Your task to perform on an android device: uninstall "ColorNote Notepad Notes" Image 0: 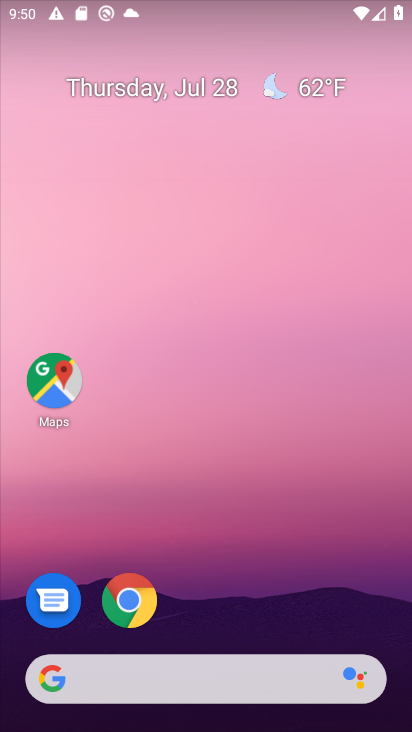
Step 0: drag from (229, 429) to (242, 25)
Your task to perform on an android device: uninstall "ColorNote Notepad Notes" Image 1: 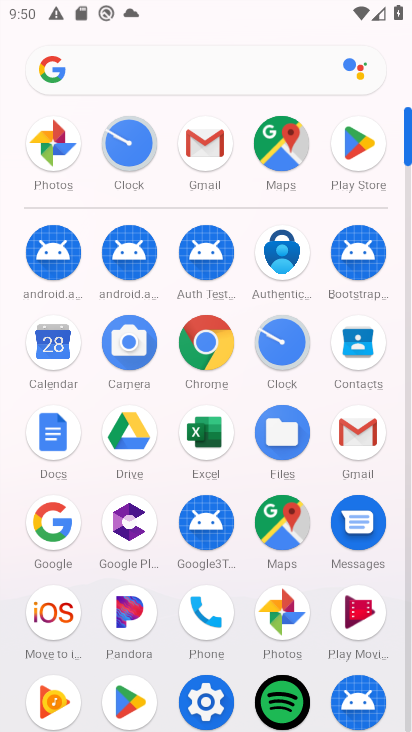
Step 1: drag from (398, 503) to (397, 465)
Your task to perform on an android device: uninstall "ColorNote Notepad Notes" Image 2: 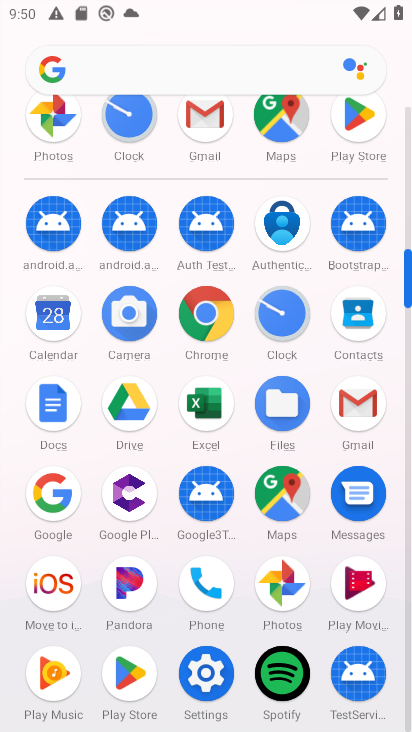
Step 2: click (366, 128)
Your task to perform on an android device: uninstall "ColorNote Notepad Notes" Image 3: 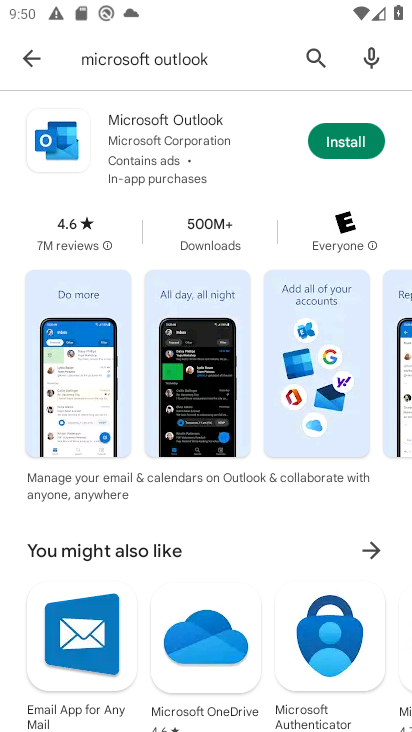
Step 3: click (307, 52)
Your task to perform on an android device: uninstall "ColorNote Notepad Notes" Image 4: 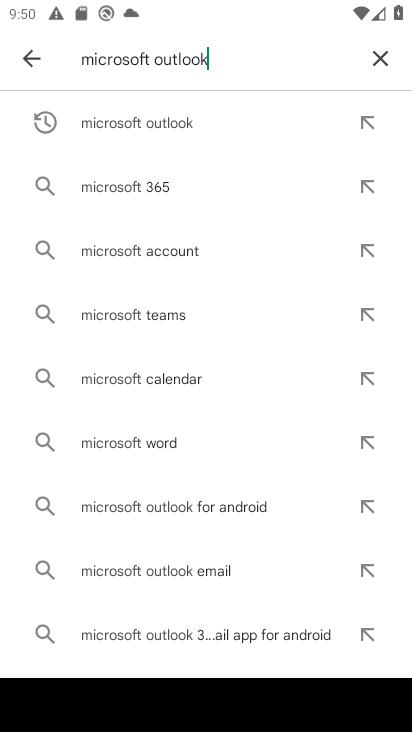
Step 4: click (374, 63)
Your task to perform on an android device: uninstall "ColorNote Notepad Notes" Image 5: 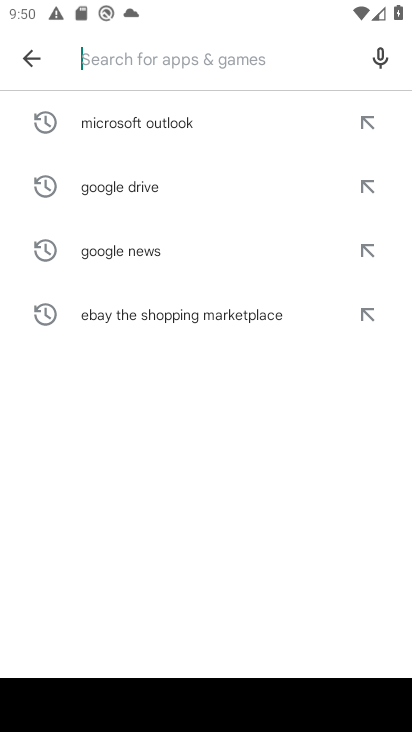
Step 5: click (200, 55)
Your task to perform on an android device: uninstall "ColorNote Notepad Notes" Image 6: 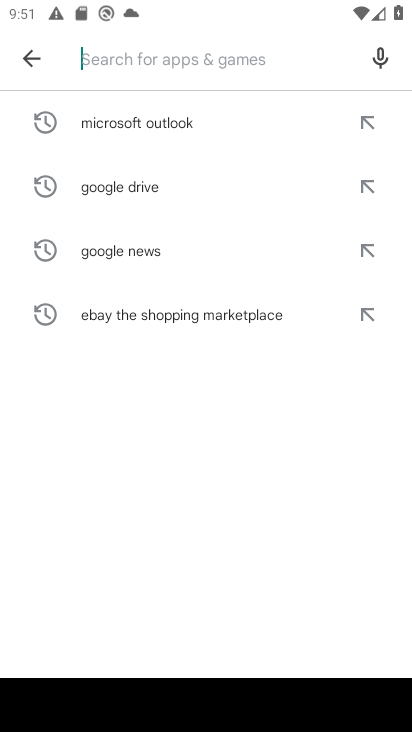
Step 6: type "ColorNote Notepad Notes"
Your task to perform on an android device: uninstall "ColorNote Notepad Notes" Image 7: 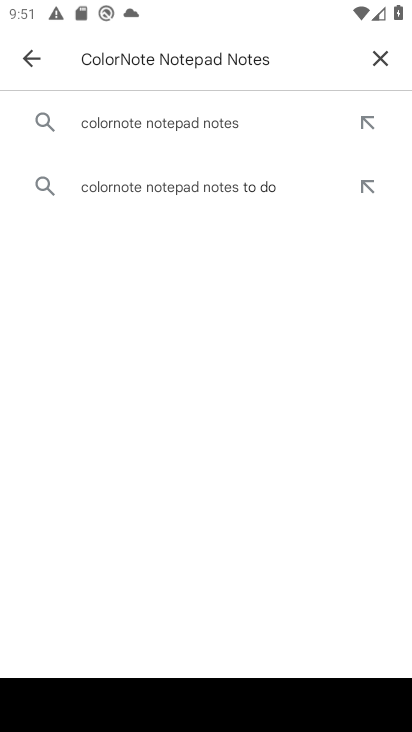
Step 7: click (145, 126)
Your task to perform on an android device: uninstall "ColorNote Notepad Notes" Image 8: 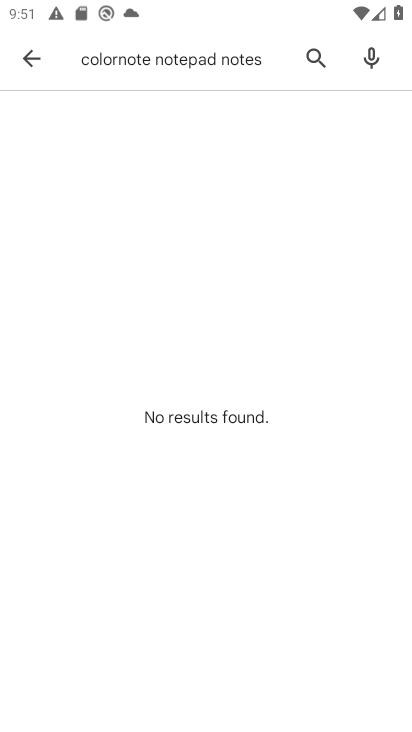
Step 8: task complete